Your task to perform on an android device: Search for flights from Tokyo to Mexico city Image 0: 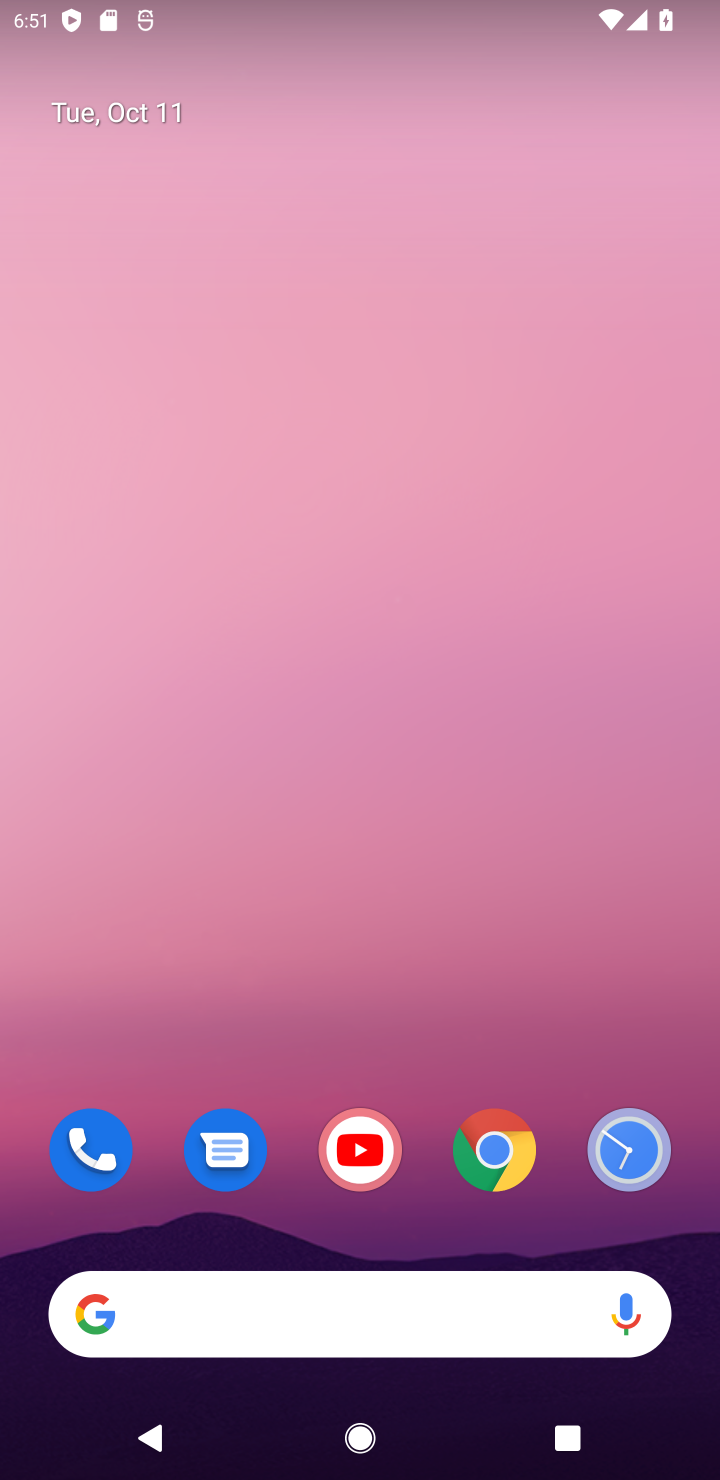
Step 0: click (501, 1170)
Your task to perform on an android device: Search for flights from Tokyo to Mexico city Image 1: 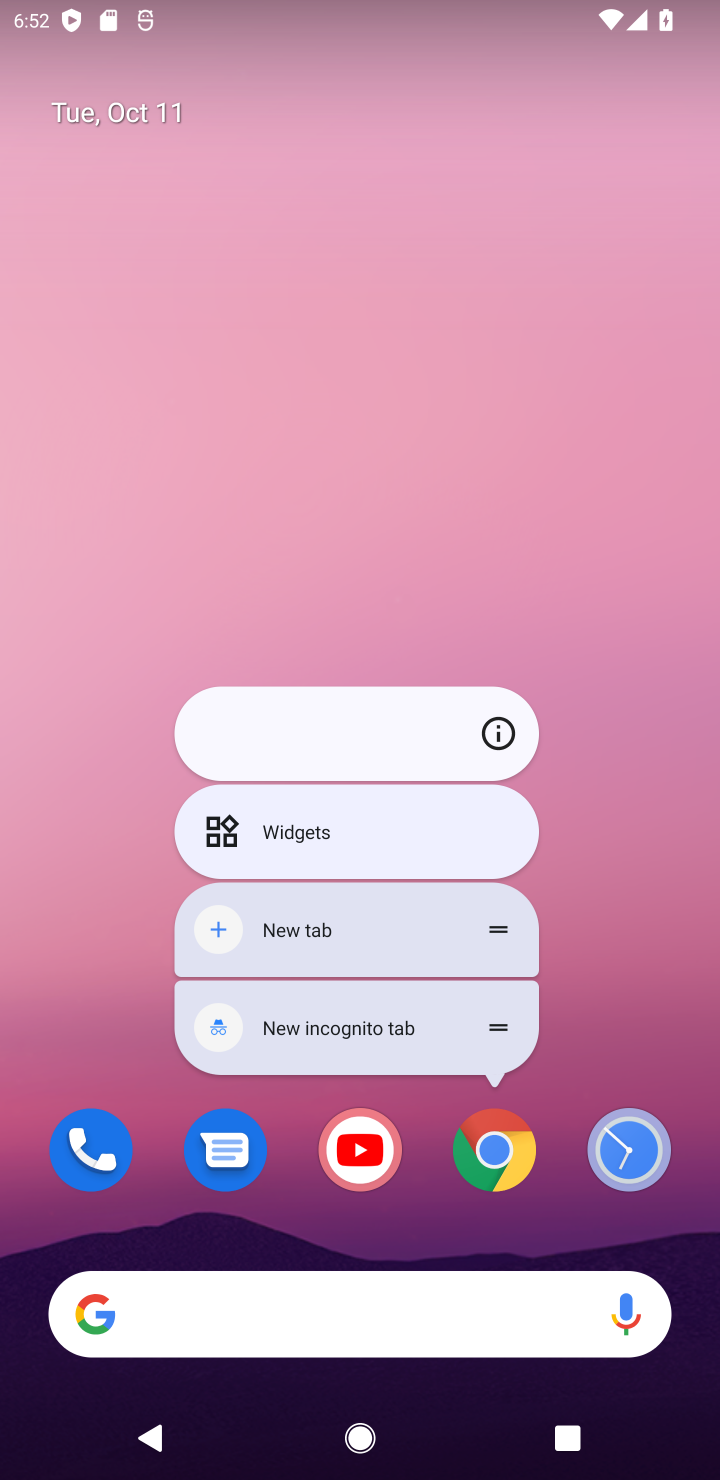
Step 1: click (505, 1153)
Your task to perform on an android device: Search for flights from Tokyo to Mexico city Image 2: 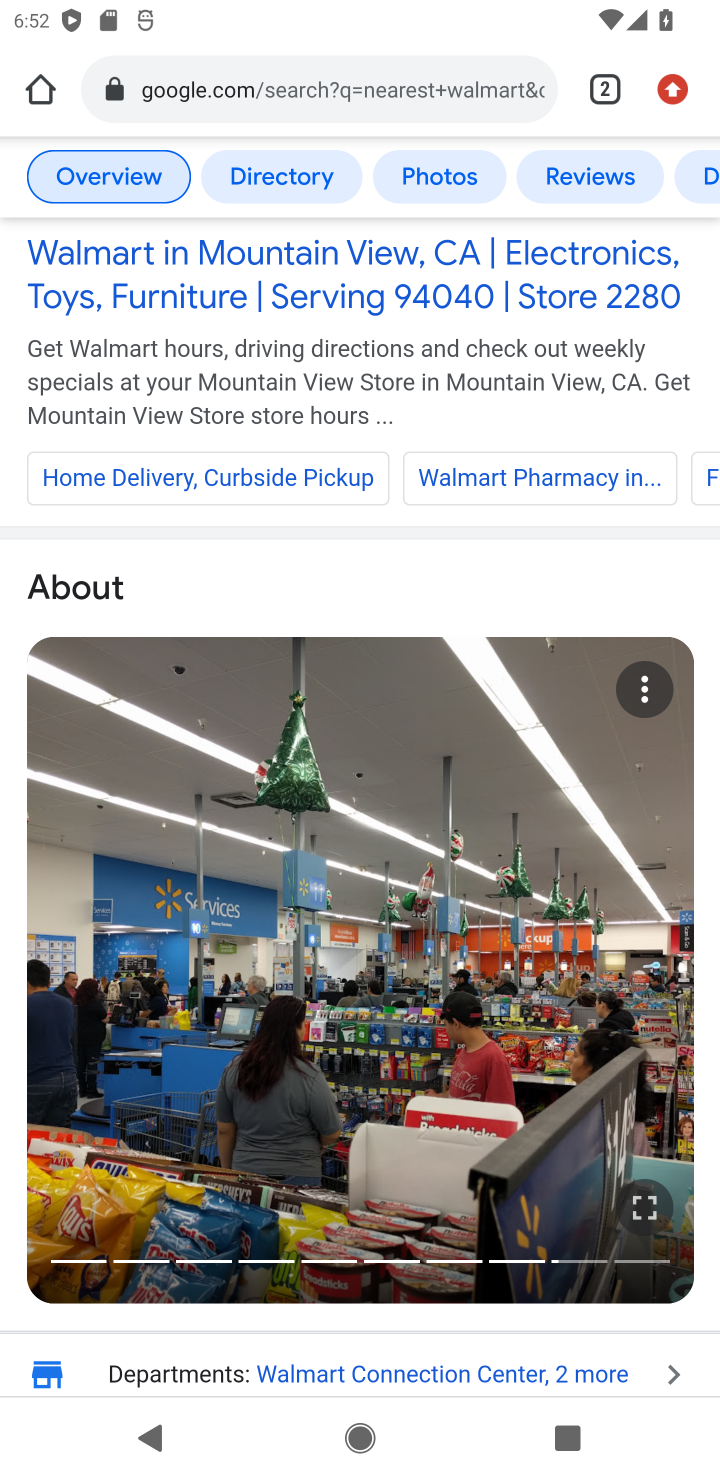
Step 2: click (345, 103)
Your task to perform on an android device: Search for flights from Tokyo to Mexico city Image 3: 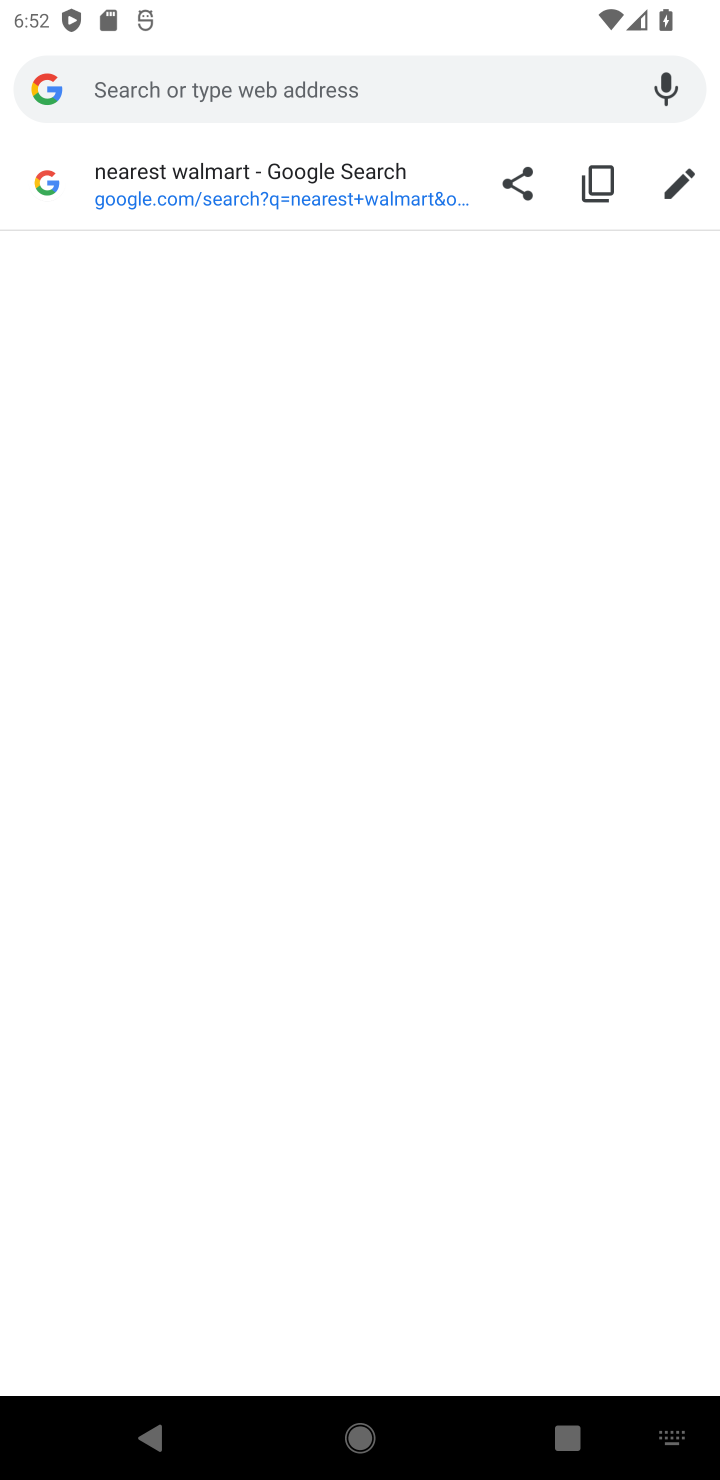
Step 3: type "Tokyo to Mexico city flights"
Your task to perform on an android device: Search for flights from Tokyo to Mexico city Image 4: 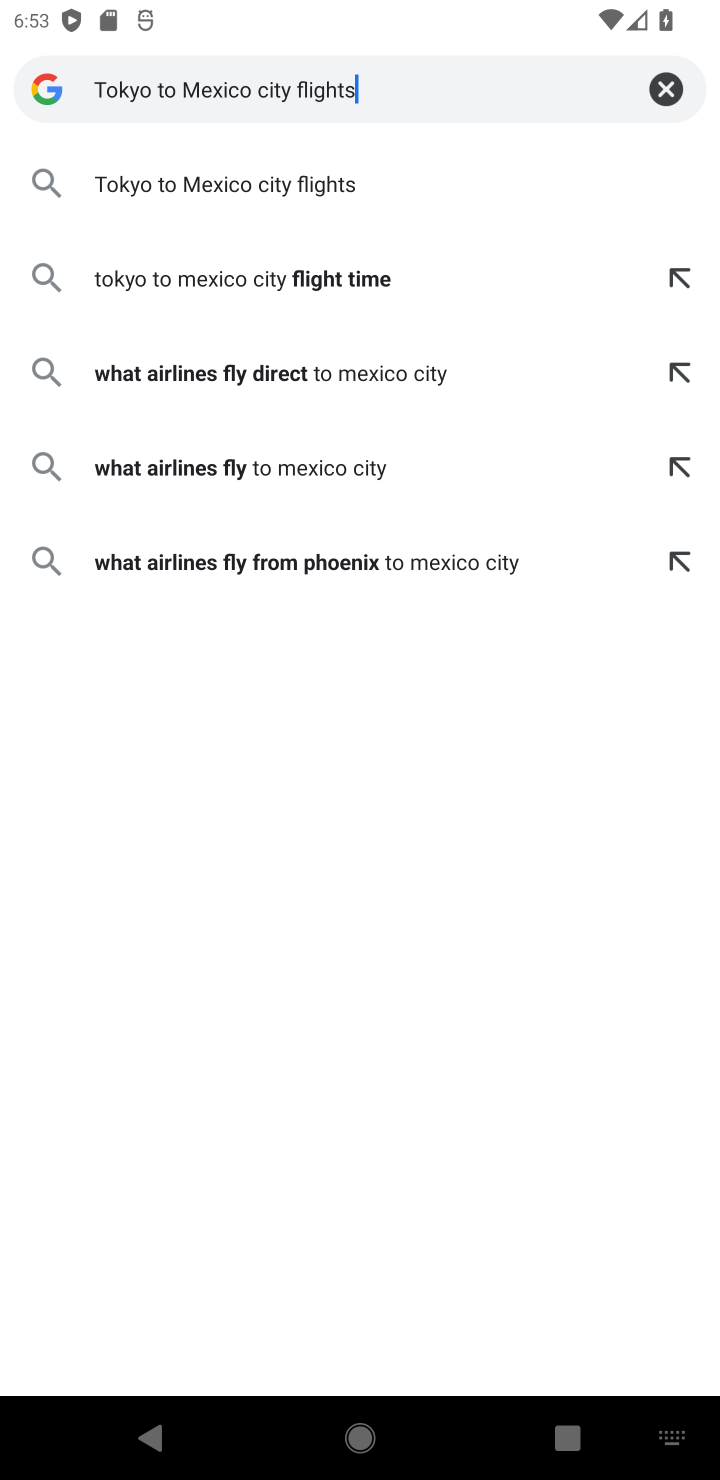
Step 4: click (218, 189)
Your task to perform on an android device: Search for flights from Tokyo to Mexico city Image 5: 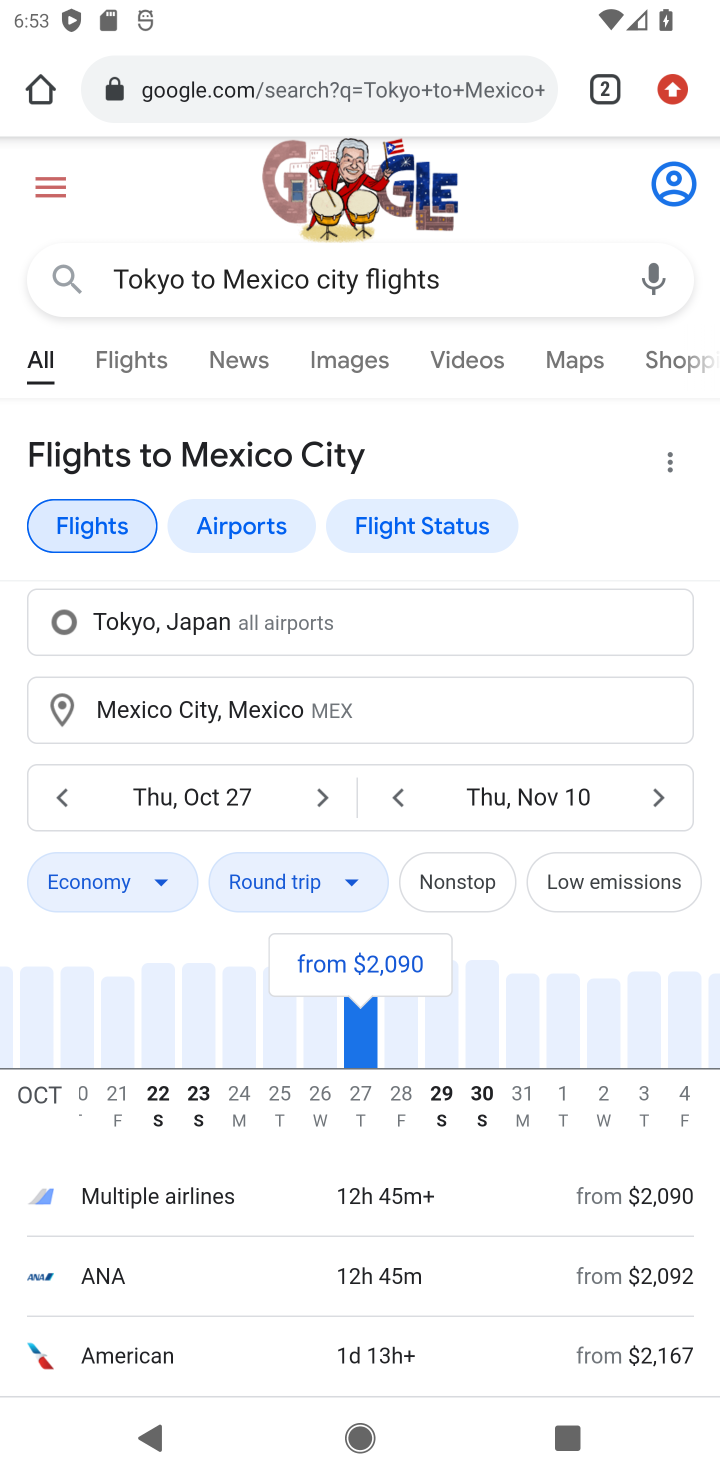
Step 5: click (133, 357)
Your task to perform on an android device: Search for flights from Tokyo to Mexico city Image 6: 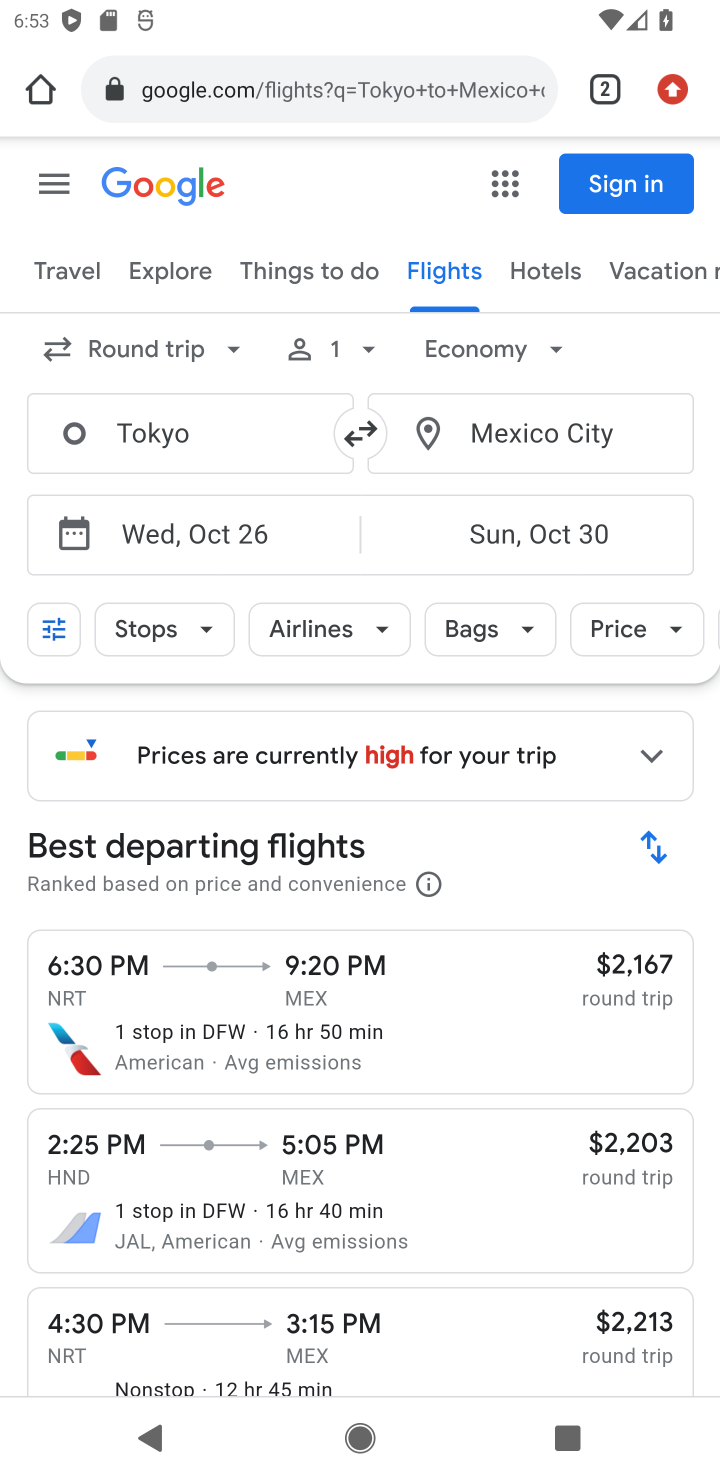
Step 6: task complete